Your task to perform on an android device: create a new album in the google photos Image 0: 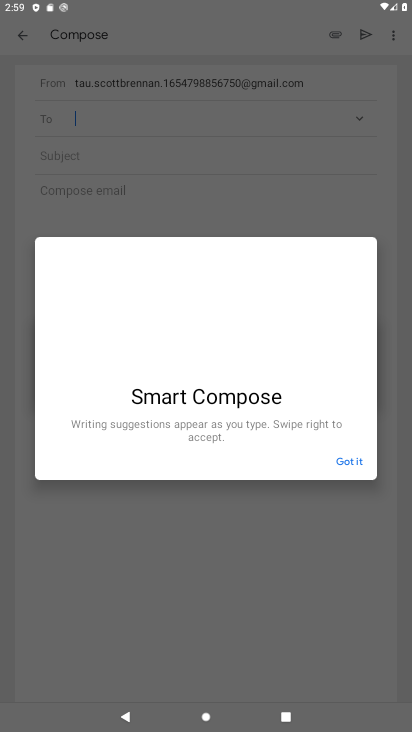
Step 0: press home button
Your task to perform on an android device: create a new album in the google photos Image 1: 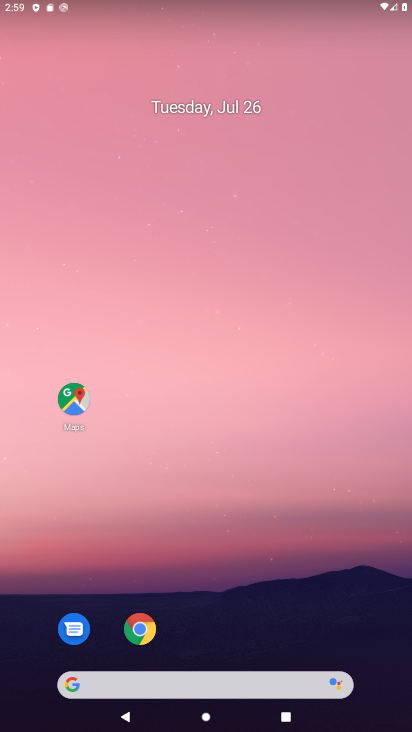
Step 1: drag from (329, 571) to (200, 110)
Your task to perform on an android device: create a new album in the google photos Image 2: 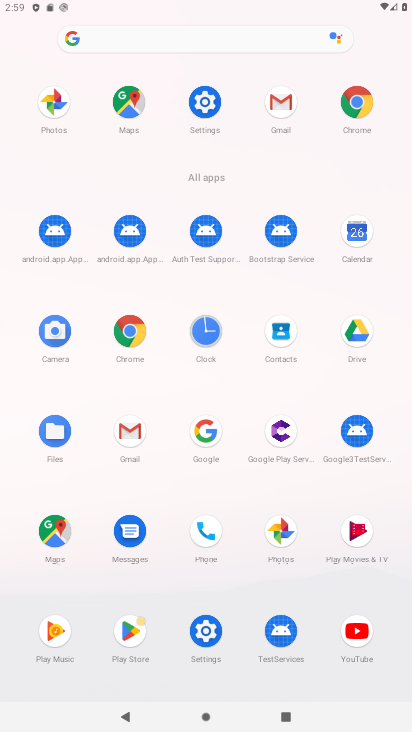
Step 2: click (286, 531)
Your task to perform on an android device: create a new album in the google photos Image 3: 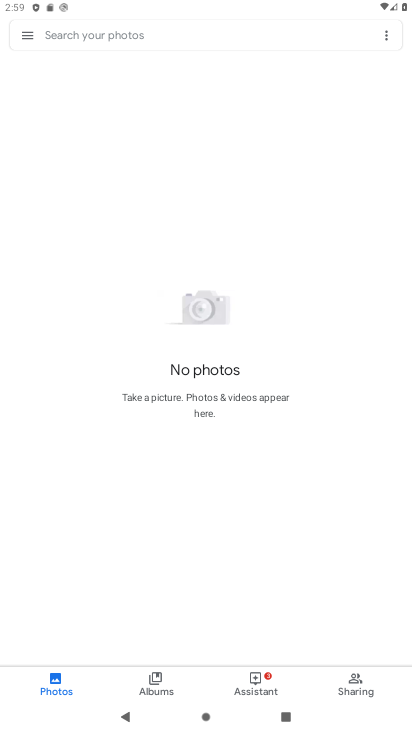
Step 3: click (158, 676)
Your task to perform on an android device: create a new album in the google photos Image 4: 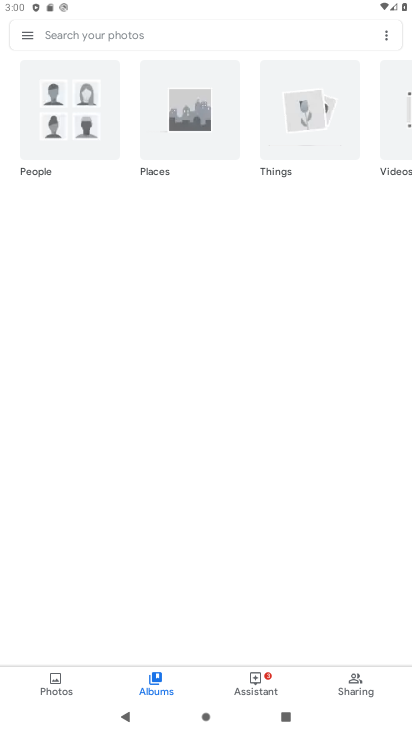
Step 4: click (49, 698)
Your task to perform on an android device: create a new album in the google photos Image 5: 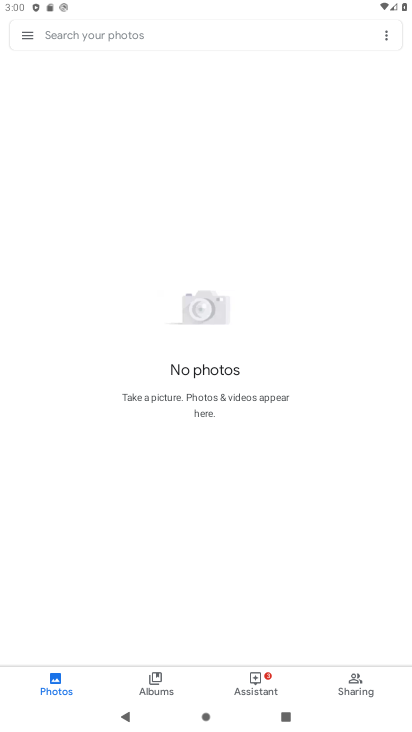
Step 5: task complete